Your task to perform on an android device: Go to CNN.com Image 0: 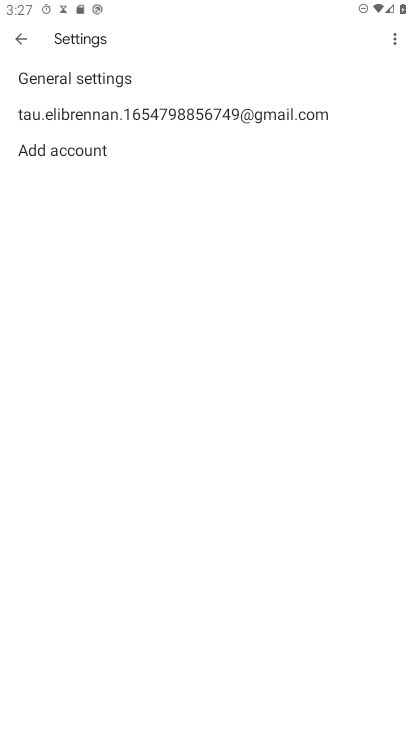
Step 0: press home button
Your task to perform on an android device: Go to CNN.com Image 1: 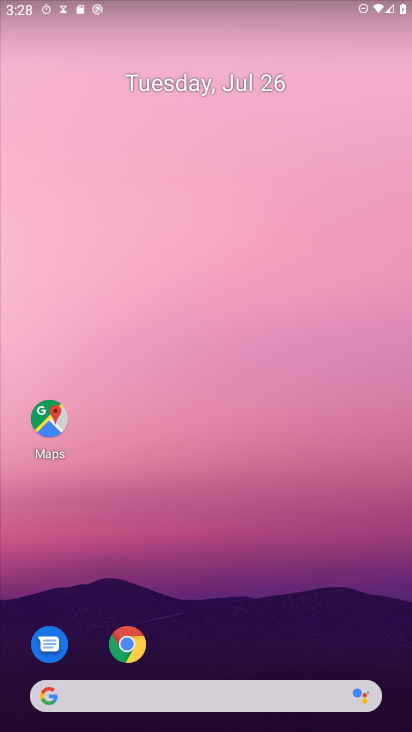
Step 1: click (42, 702)
Your task to perform on an android device: Go to CNN.com Image 2: 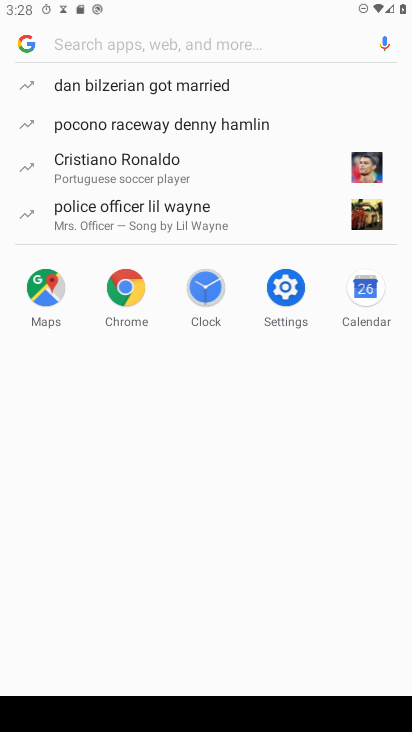
Step 2: type "CNN.com"
Your task to perform on an android device: Go to CNN.com Image 3: 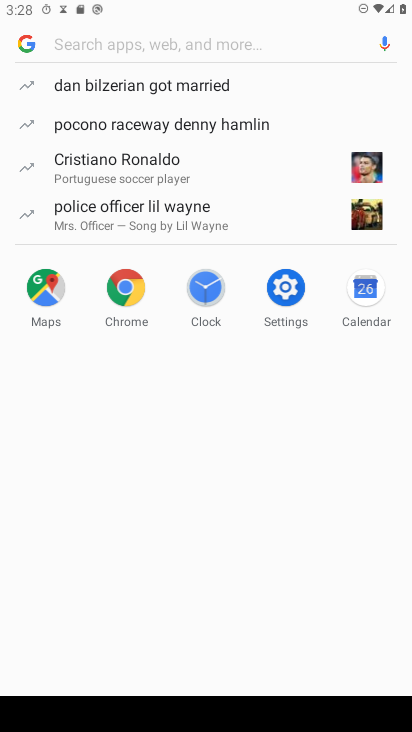
Step 3: click (77, 37)
Your task to perform on an android device: Go to CNN.com Image 4: 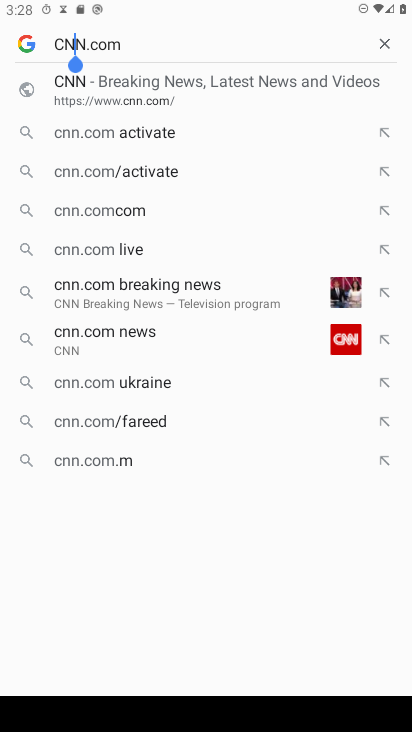
Step 4: press enter
Your task to perform on an android device: Go to CNN.com Image 5: 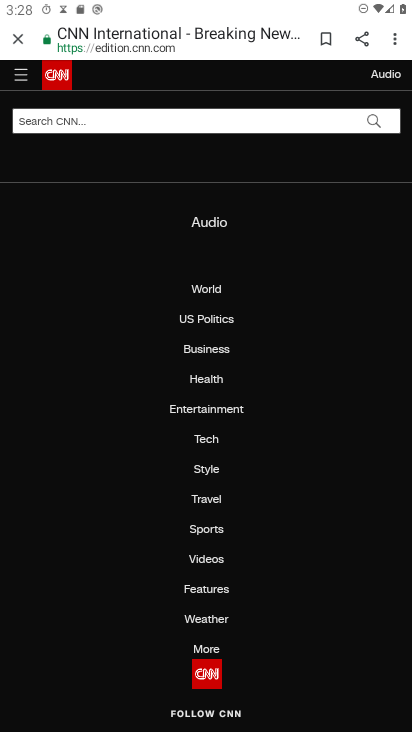
Step 5: task complete